Your task to perform on an android device: Open calendar and show me the second week of next month Image 0: 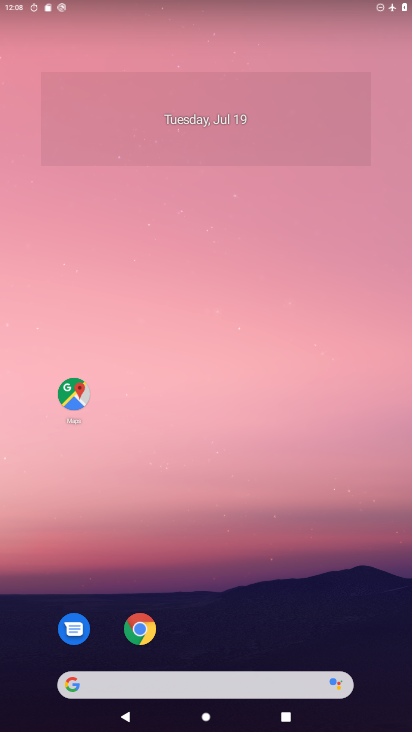
Step 0: drag from (248, 615) to (263, 106)
Your task to perform on an android device: Open calendar and show me the second week of next month Image 1: 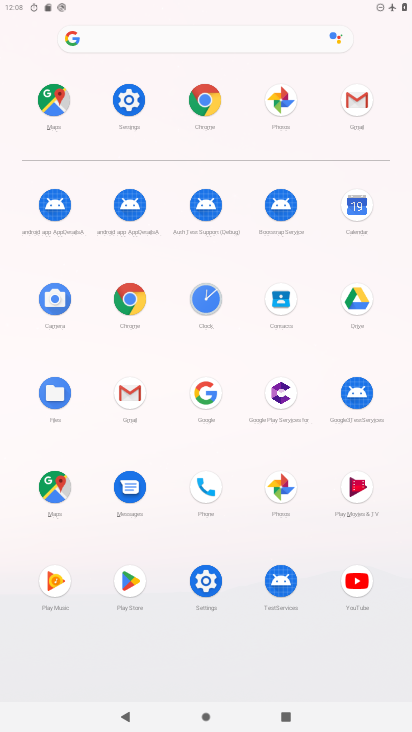
Step 1: click (353, 202)
Your task to perform on an android device: Open calendar and show me the second week of next month Image 2: 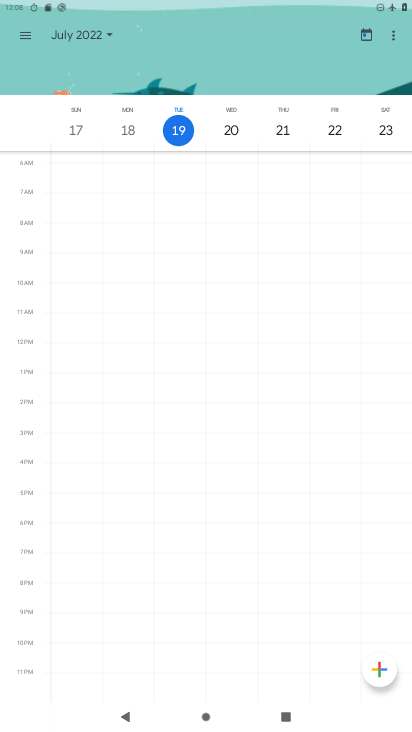
Step 2: click (60, 33)
Your task to perform on an android device: Open calendar and show me the second week of next month Image 3: 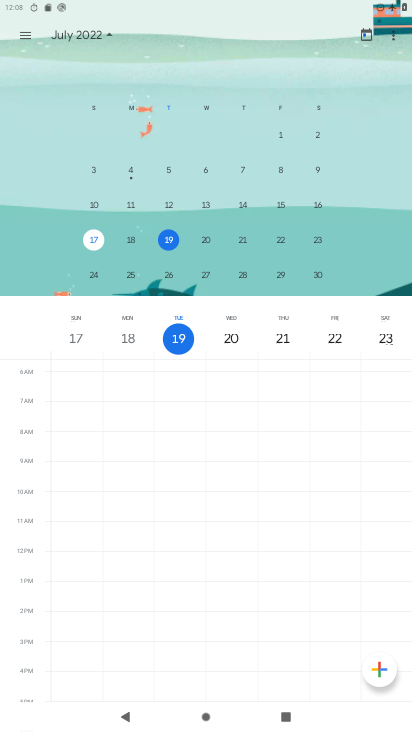
Step 3: drag from (314, 217) to (96, 209)
Your task to perform on an android device: Open calendar and show me the second week of next month Image 4: 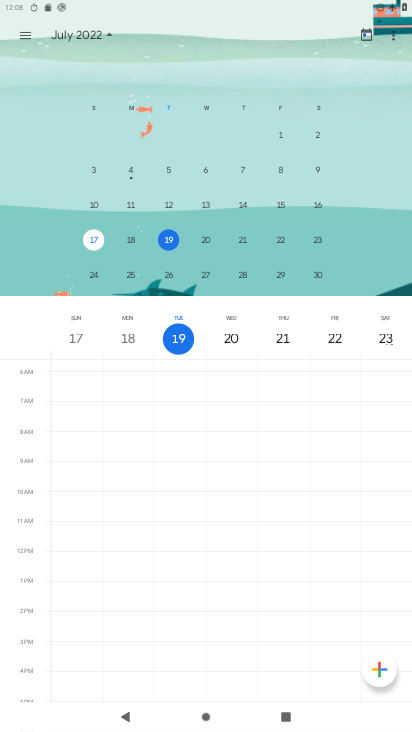
Step 4: drag from (395, 209) to (32, 212)
Your task to perform on an android device: Open calendar and show me the second week of next month Image 5: 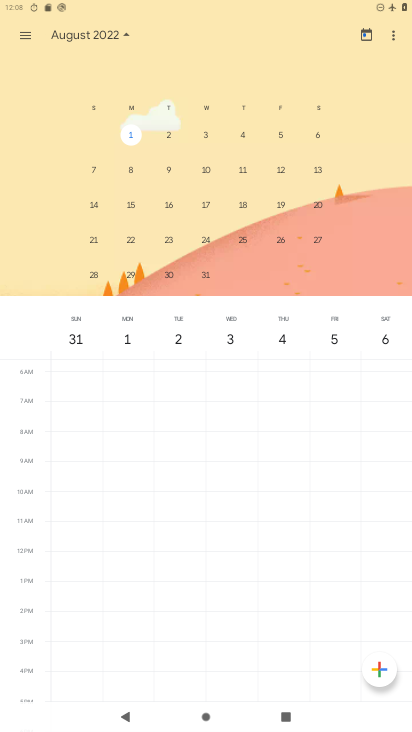
Step 5: click (197, 164)
Your task to perform on an android device: Open calendar and show me the second week of next month Image 6: 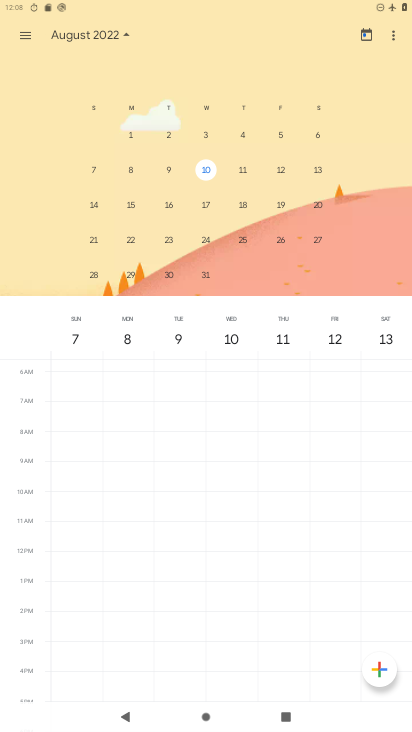
Step 6: task complete